Your task to perform on an android device: search for accent chairs on article.com Image 0: 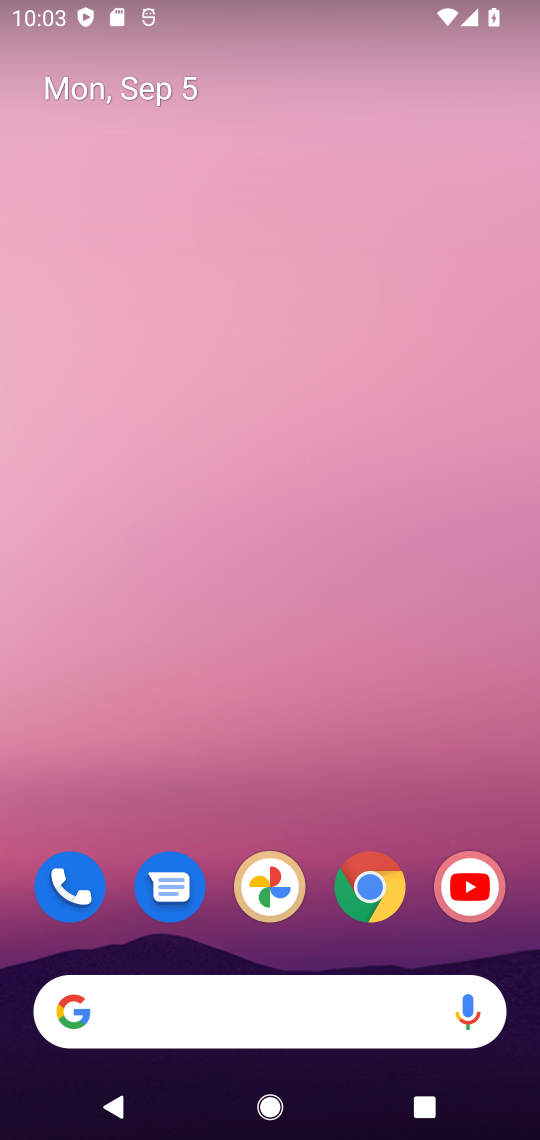
Step 0: click (360, 877)
Your task to perform on an android device: search for accent chairs on article.com Image 1: 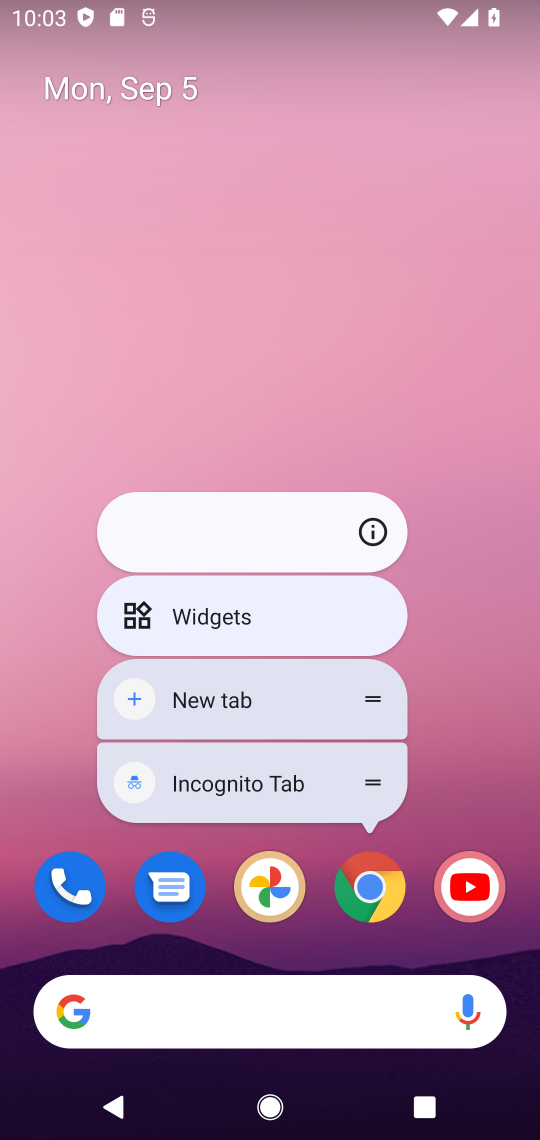
Step 1: click (360, 876)
Your task to perform on an android device: search for accent chairs on article.com Image 2: 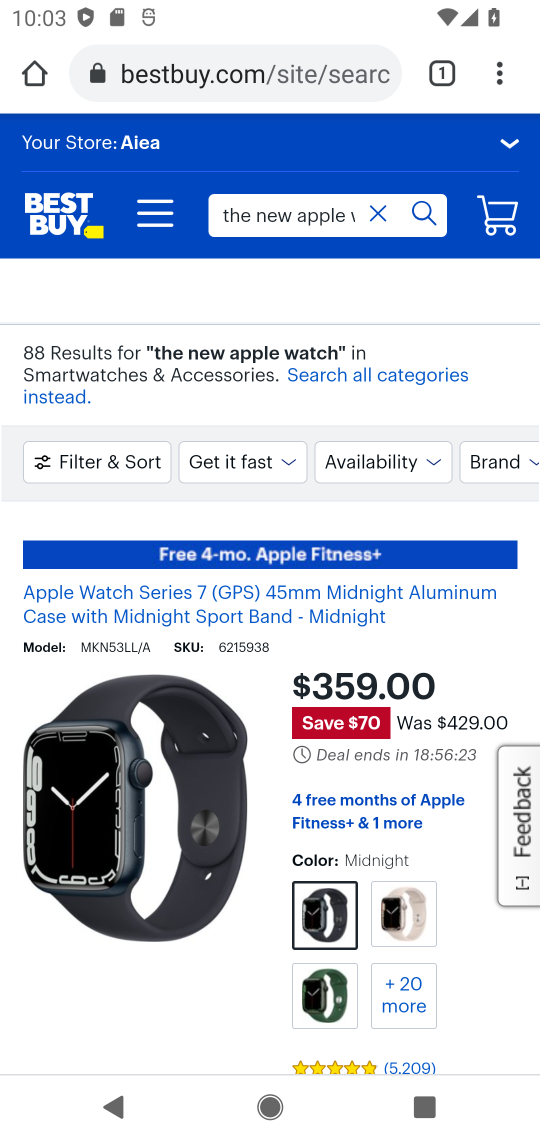
Step 2: click (206, 71)
Your task to perform on an android device: search for accent chairs on article.com Image 3: 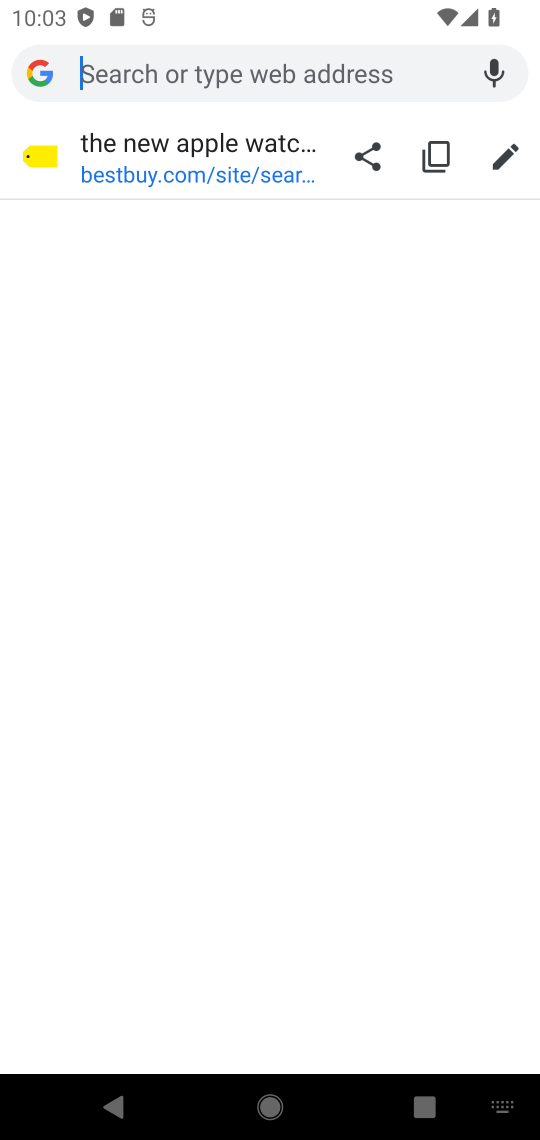
Step 3: type "Article.com"
Your task to perform on an android device: search for accent chairs on article.com Image 4: 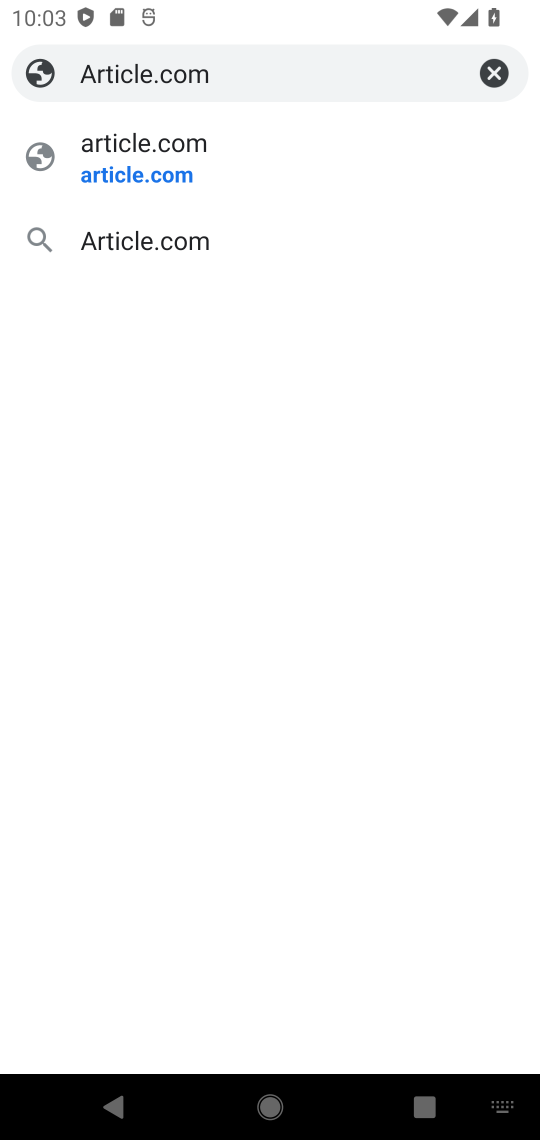
Step 4: click (153, 157)
Your task to perform on an android device: search for accent chairs on article.com Image 5: 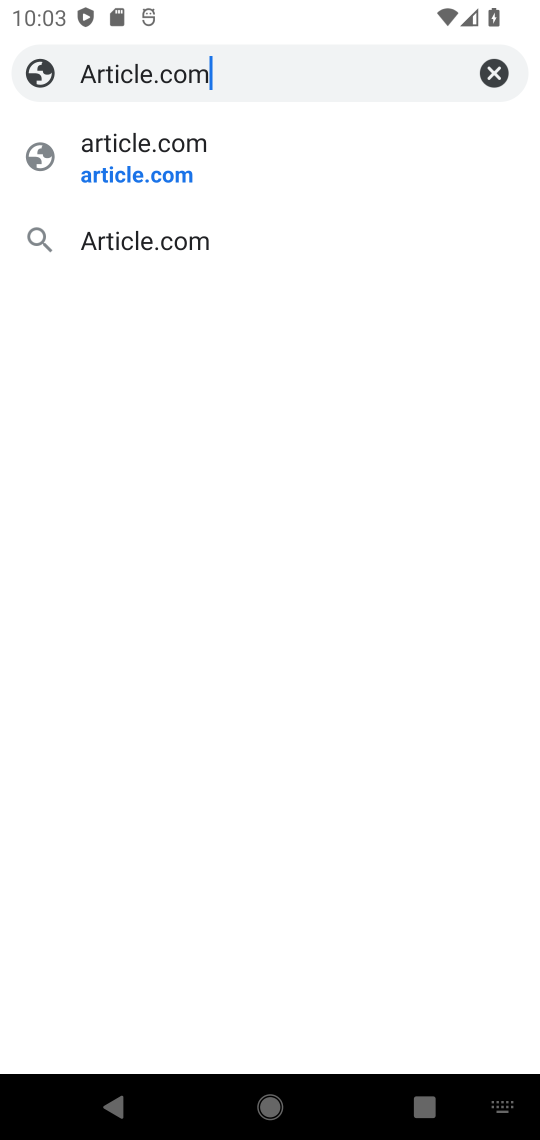
Step 5: click (160, 167)
Your task to perform on an android device: search for accent chairs on article.com Image 6: 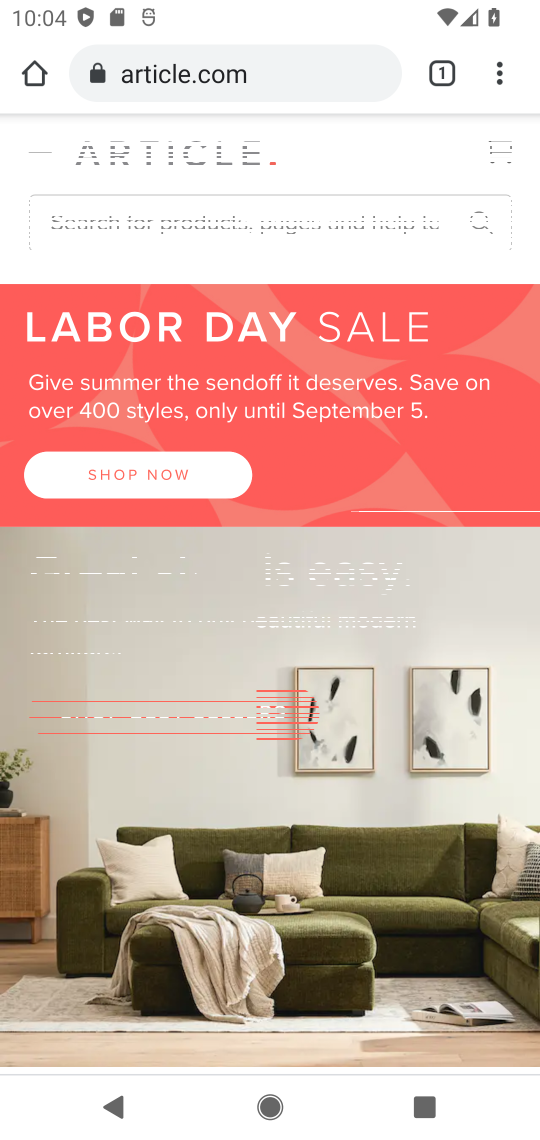
Step 6: click (168, 230)
Your task to perform on an android device: search for accent chairs on article.com Image 7: 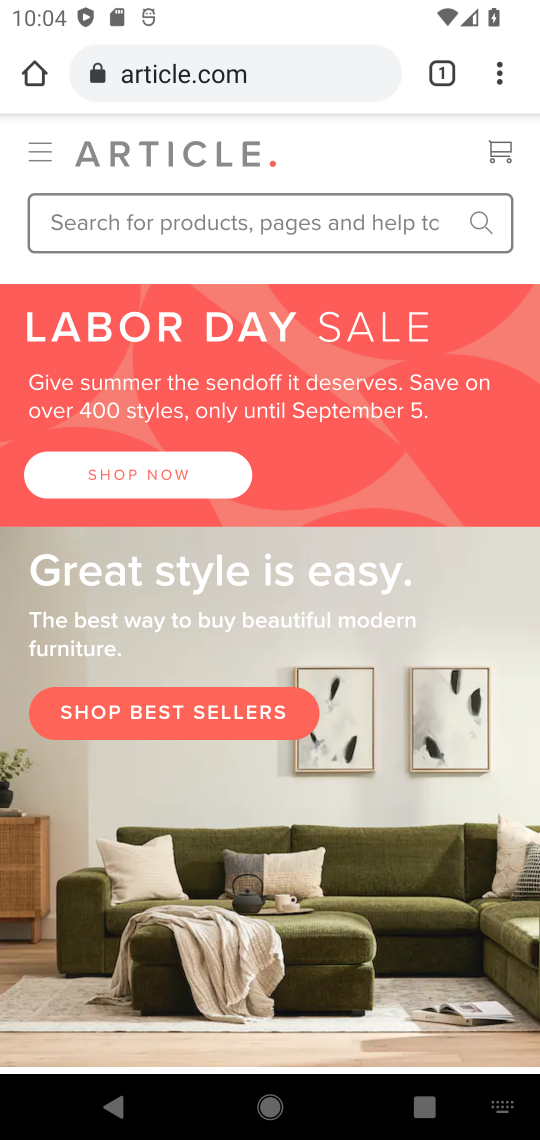
Step 7: click (227, 230)
Your task to perform on an android device: search for accent chairs on article.com Image 8: 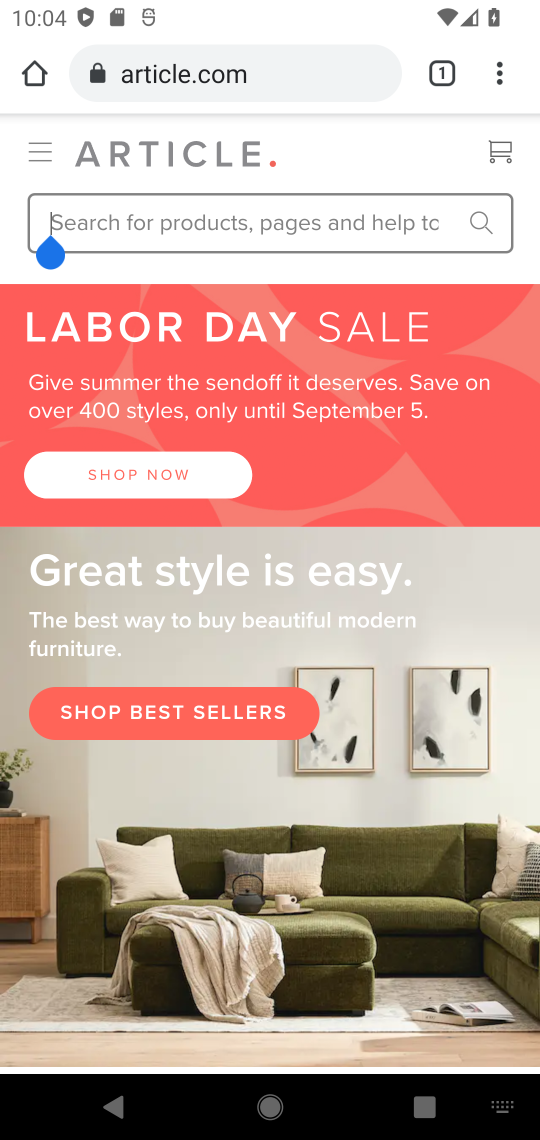
Step 8: type "accent chairs"
Your task to perform on an android device: search for accent chairs on article.com Image 9: 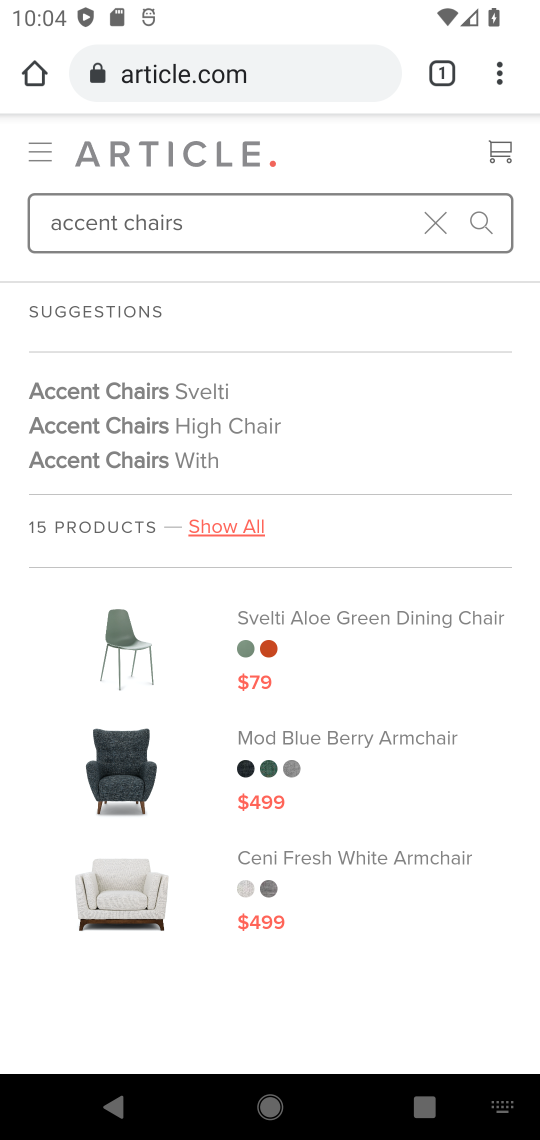
Step 9: click (472, 221)
Your task to perform on an android device: search for accent chairs on article.com Image 10: 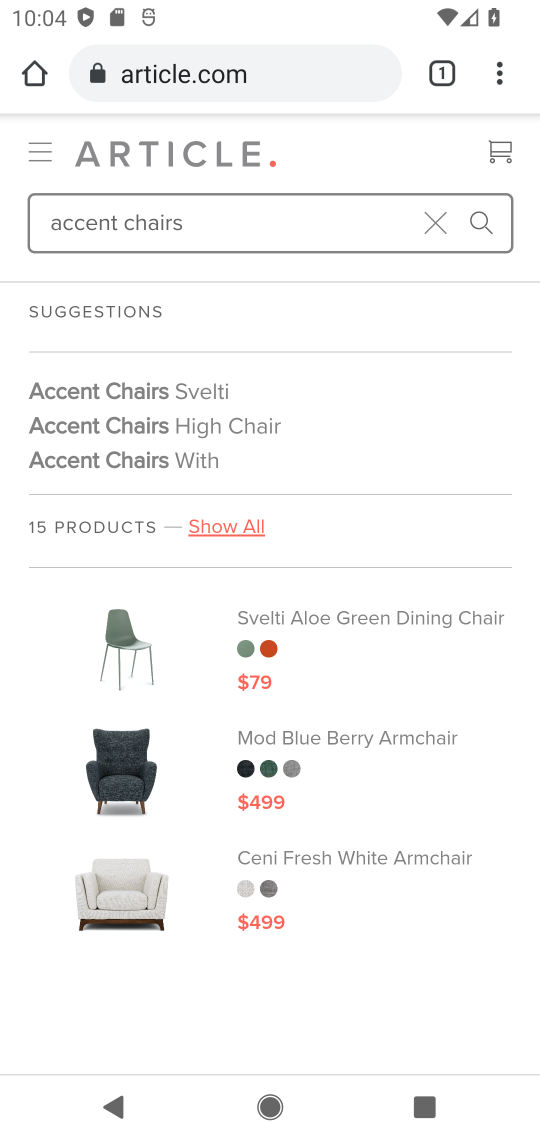
Step 10: click (492, 223)
Your task to perform on an android device: search for accent chairs on article.com Image 11: 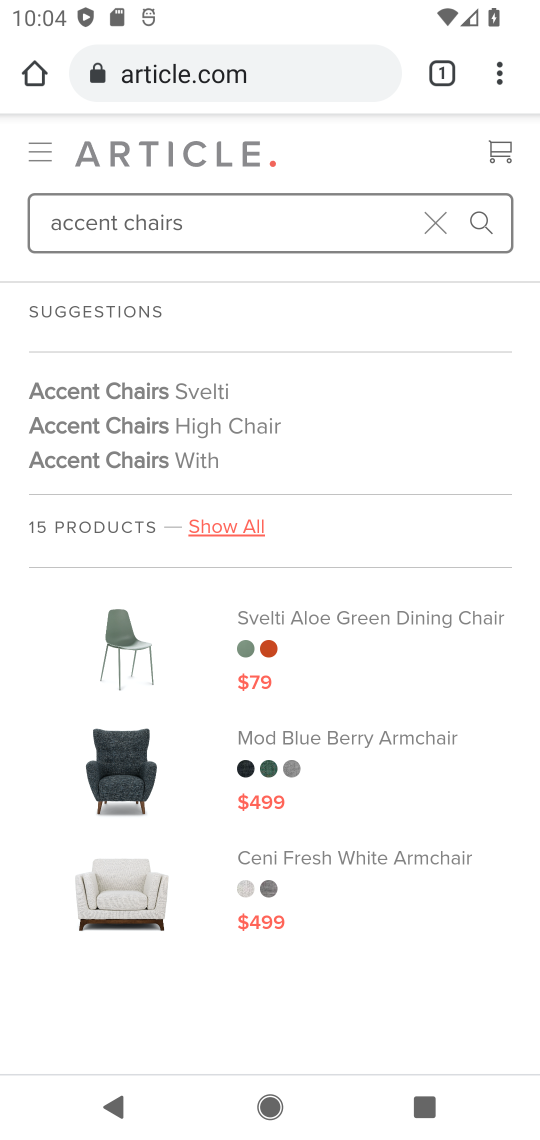
Step 11: task complete